Your task to perform on an android device: turn on sleep mode Image 0: 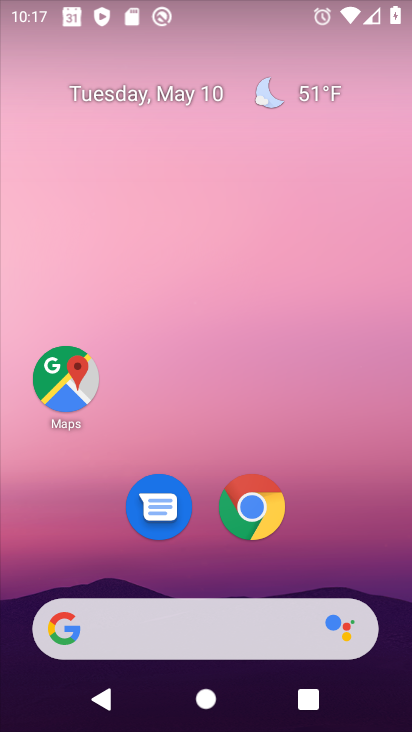
Step 0: drag from (189, 573) to (201, 113)
Your task to perform on an android device: turn on sleep mode Image 1: 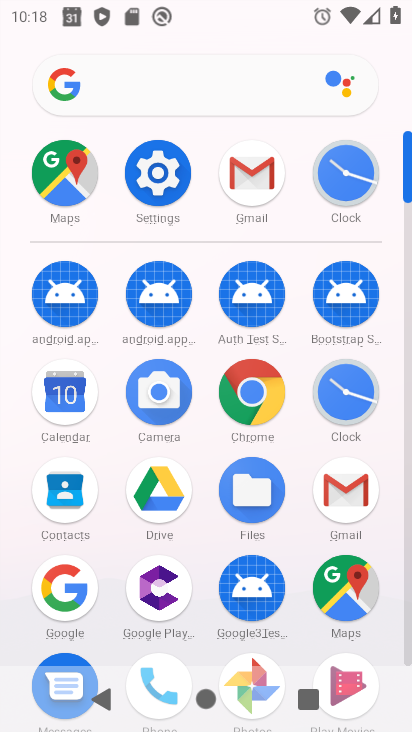
Step 1: click (151, 190)
Your task to perform on an android device: turn on sleep mode Image 2: 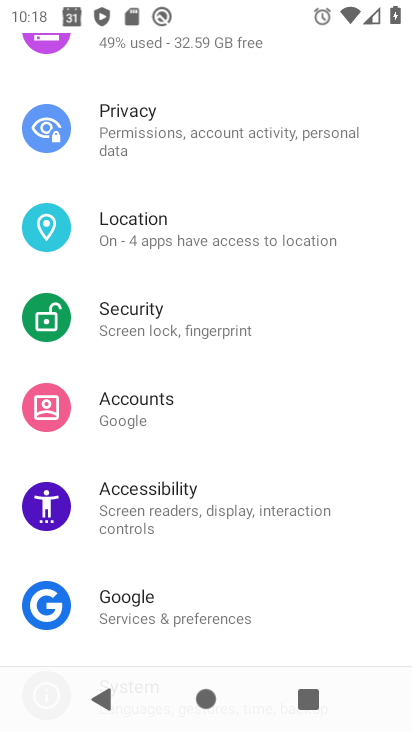
Step 2: task complete